Your task to perform on an android device: Find coffee shops on Maps Image 0: 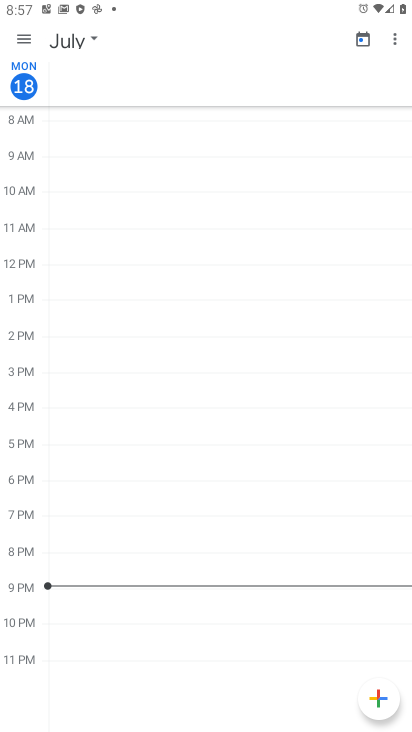
Step 0: press home button
Your task to perform on an android device: Find coffee shops on Maps Image 1: 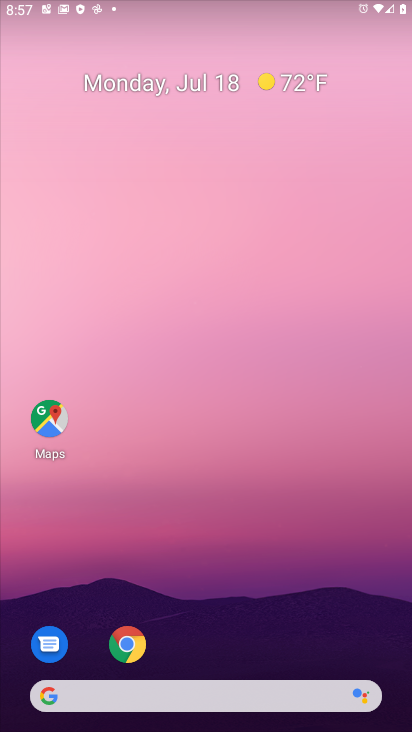
Step 1: drag from (389, 649) to (294, 133)
Your task to perform on an android device: Find coffee shops on Maps Image 2: 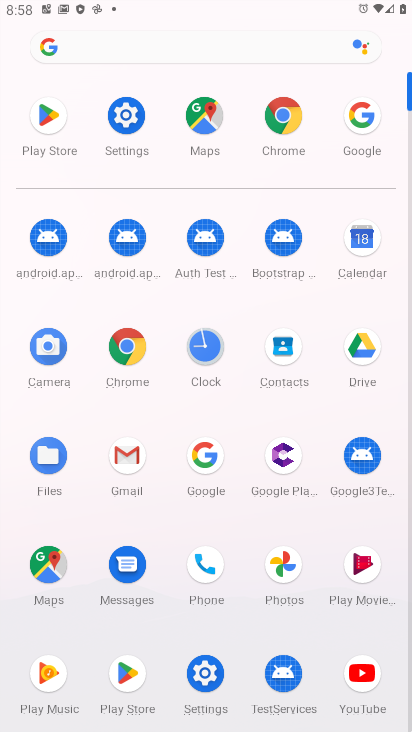
Step 2: click (47, 572)
Your task to perform on an android device: Find coffee shops on Maps Image 3: 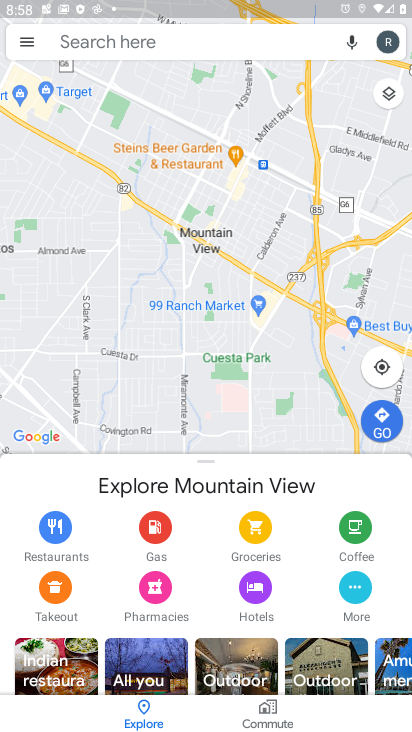
Step 3: click (91, 40)
Your task to perform on an android device: Find coffee shops on Maps Image 4: 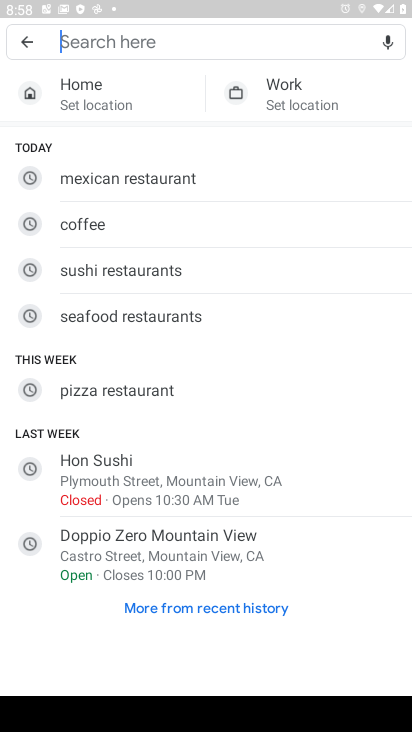
Step 4: click (114, 232)
Your task to perform on an android device: Find coffee shops on Maps Image 5: 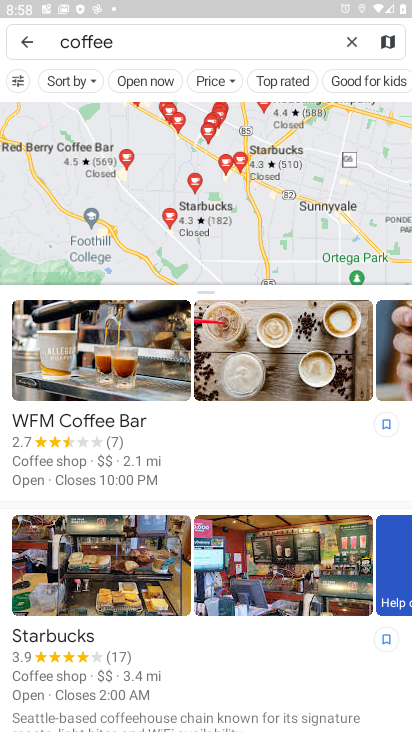
Step 5: task complete